Your task to perform on an android device: Turn on the flashlight Image 0: 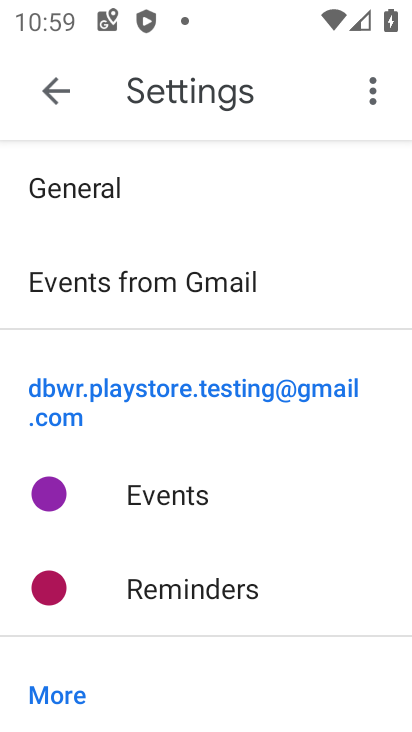
Step 0: press home button
Your task to perform on an android device: Turn on the flashlight Image 1: 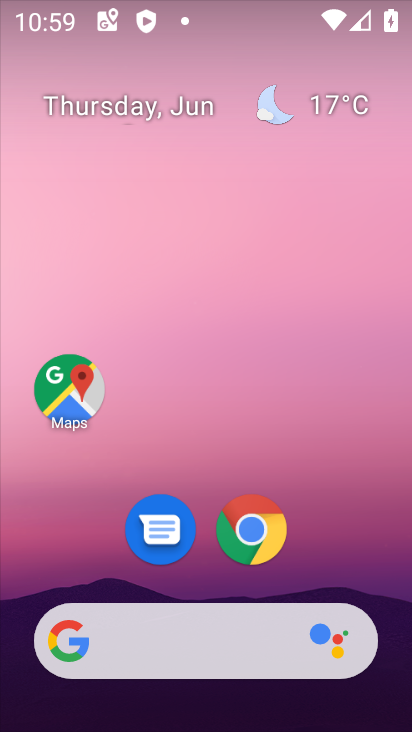
Step 1: drag from (194, 593) to (232, 53)
Your task to perform on an android device: Turn on the flashlight Image 2: 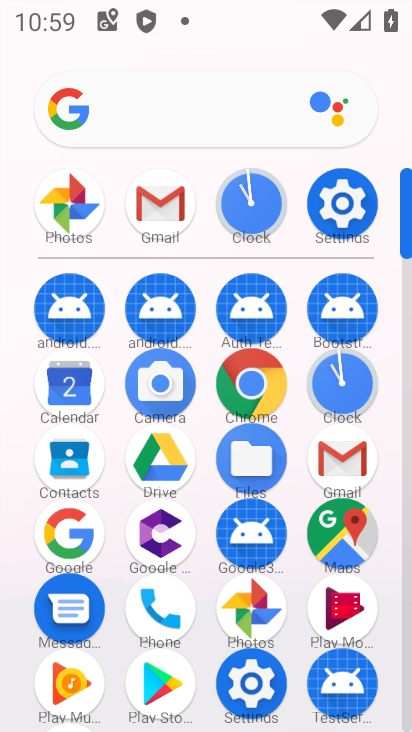
Step 2: click (359, 195)
Your task to perform on an android device: Turn on the flashlight Image 3: 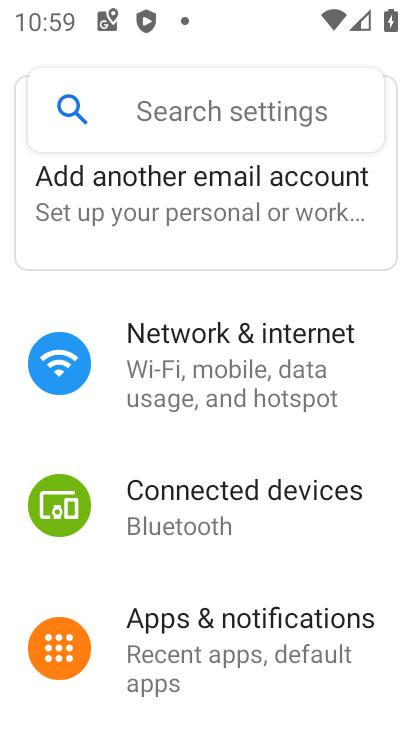
Step 3: task complete